Your task to perform on an android device: check google app version Image 0: 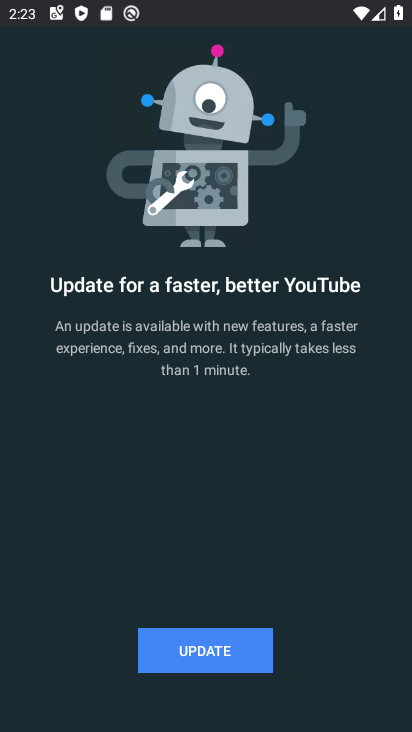
Step 0: press home button
Your task to perform on an android device: check google app version Image 1: 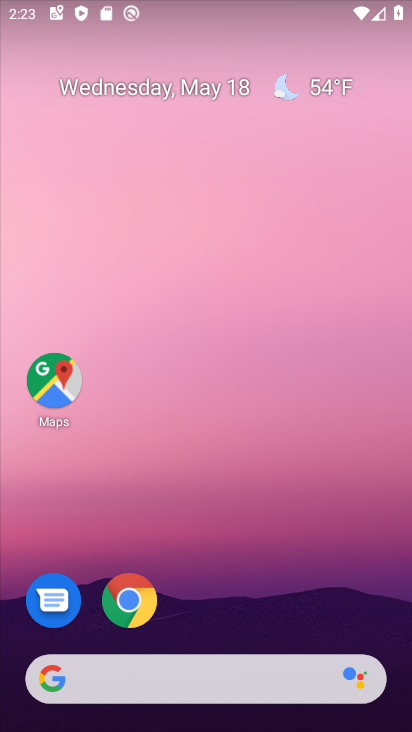
Step 1: click (136, 683)
Your task to perform on an android device: check google app version Image 2: 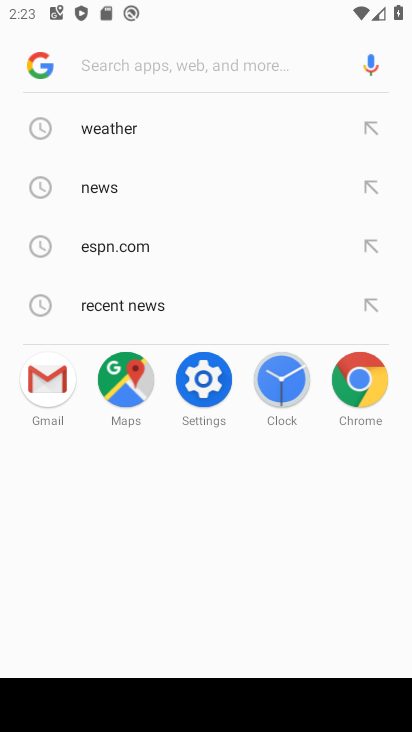
Step 2: click (36, 51)
Your task to perform on an android device: check google app version Image 3: 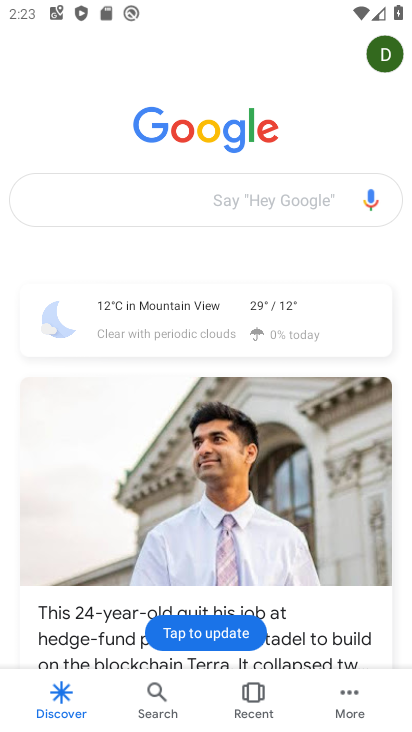
Step 3: click (360, 695)
Your task to perform on an android device: check google app version Image 4: 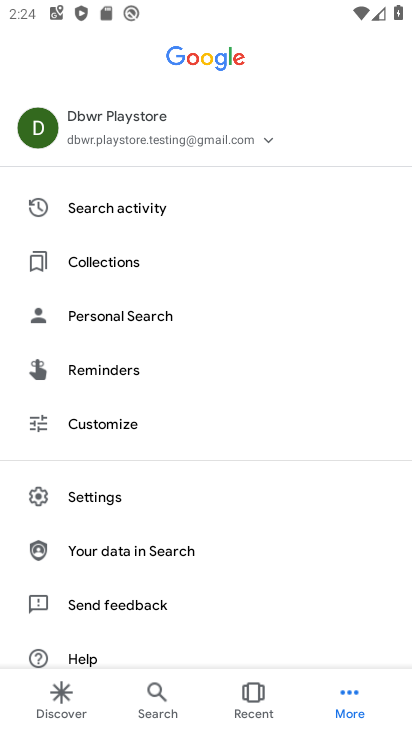
Step 4: click (111, 496)
Your task to perform on an android device: check google app version Image 5: 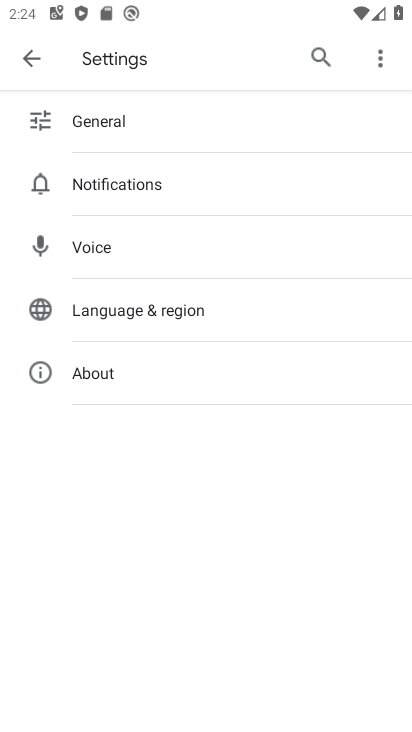
Step 5: click (111, 381)
Your task to perform on an android device: check google app version Image 6: 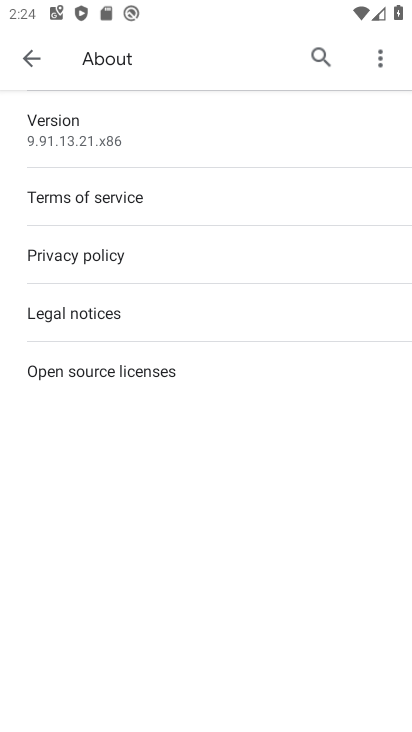
Step 6: click (149, 153)
Your task to perform on an android device: check google app version Image 7: 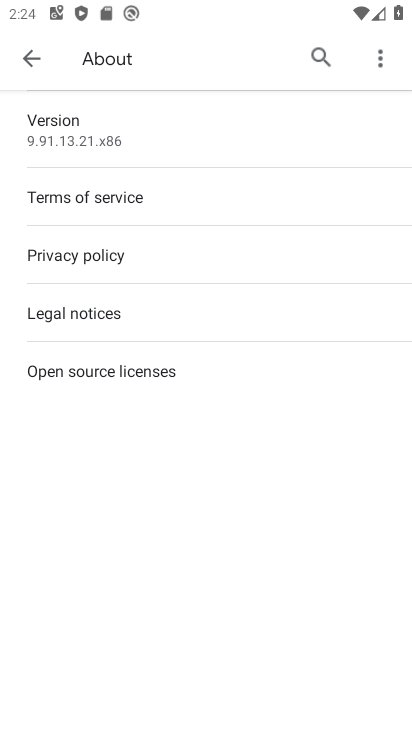
Step 7: task complete